Your task to perform on an android device: turn off location Image 0: 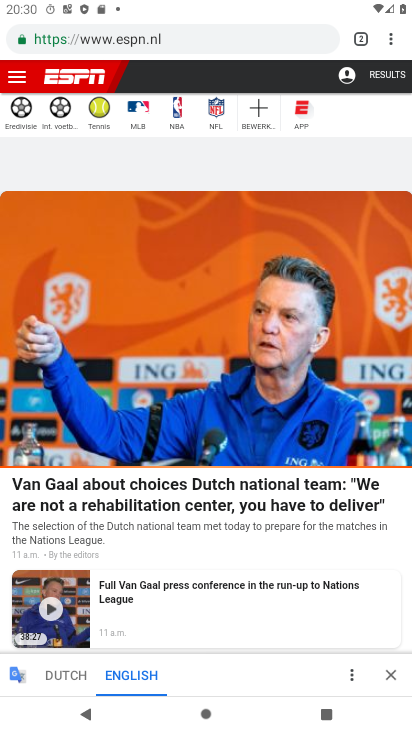
Step 0: press home button
Your task to perform on an android device: turn off location Image 1: 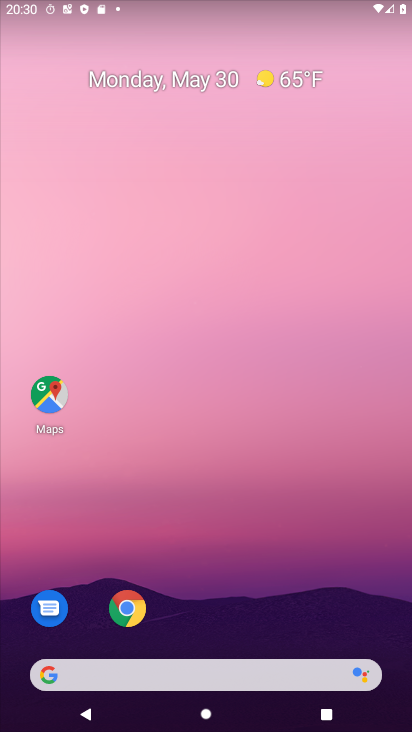
Step 1: drag from (192, 642) to (176, 196)
Your task to perform on an android device: turn off location Image 2: 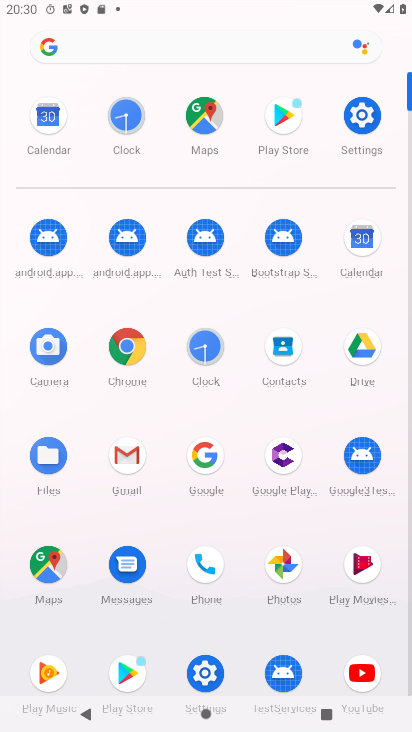
Step 2: click (345, 131)
Your task to perform on an android device: turn off location Image 3: 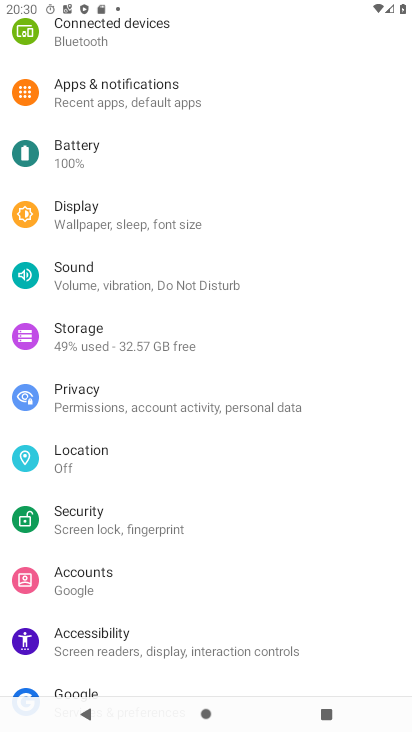
Step 3: click (161, 465)
Your task to perform on an android device: turn off location Image 4: 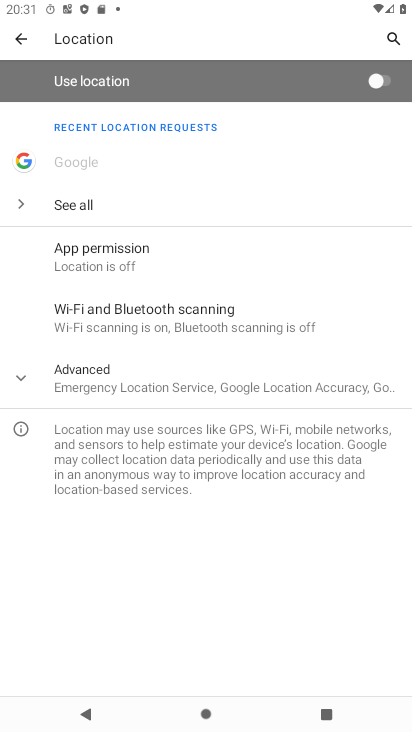
Step 4: task complete